Your task to perform on an android device: Clear the shopping cart on costco. Search for "logitech g pro" on costco, select the first entry, and add it to the cart. Image 0: 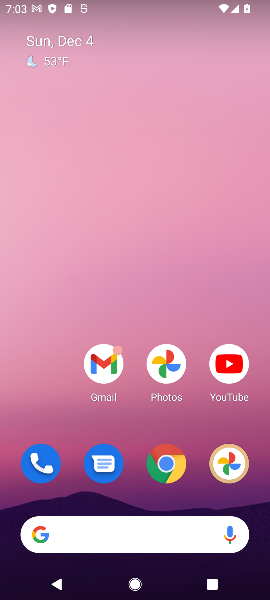
Step 0: click (166, 531)
Your task to perform on an android device: Clear the shopping cart on costco. Search for "logitech g pro" on costco, select the first entry, and add it to the cart. Image 1: 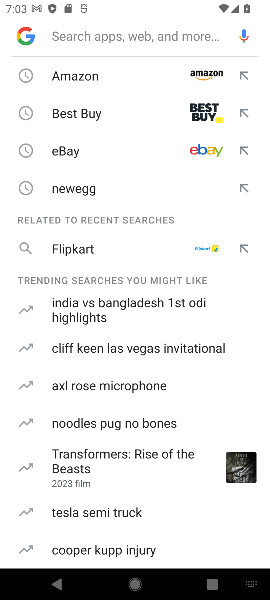
Step 1: type "costco"
Your task to perform on an android device: Clear the shopping cart on costco. Search for "logitech g pro" on costco, select the first entry, and add it to the cart. Image 2: 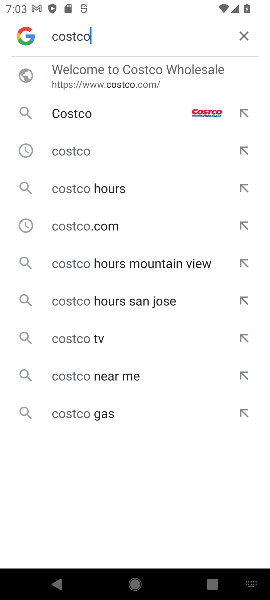
Step 2: click (131, 79)
Your task to perform on an android device: Clear the shopping cart on costco. Search for "logitech g pro" on costco, select the first entry, and add it to the cart. Image 3: 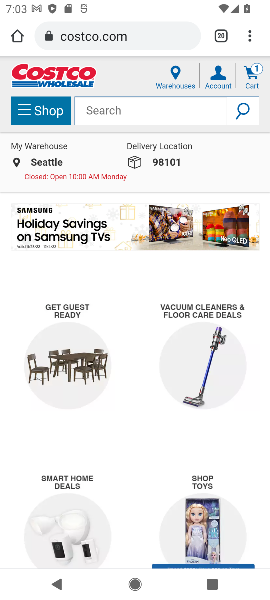
Step 3: click (134, 113)
Your task to perform on an android device: Clear the shopping cart on costco. Search for "logitech g pro" on costco, select the first entry, and add it to the cart. Image 4: 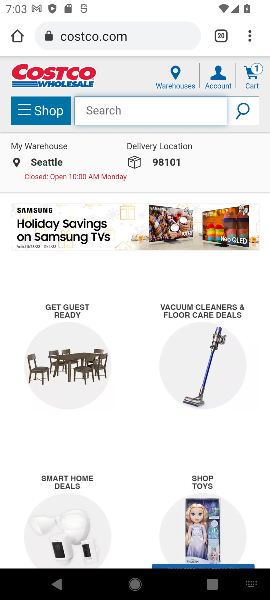
Step 4: type "logitech g pro"
Your task to perform on an android device: Clear the shopping cart on costco. Search for "logitech g pro" on costco, select the first entry, and add it to the cart. Image 5: 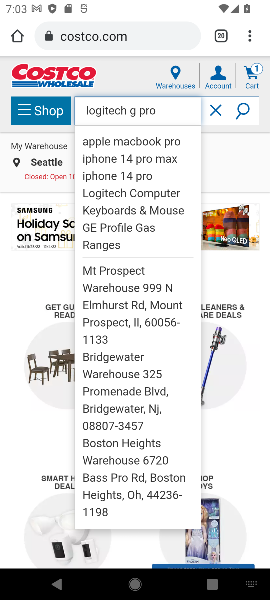
Step 5: click (242, 107)
Your task to perform on an android device: Clear the shopping cart on costco. Search for "logitech g pro" on costco, select the first entry, and add it to the cart. Image 6: 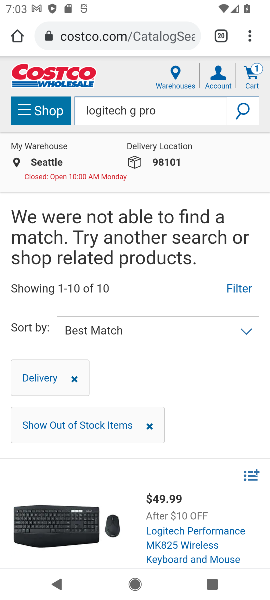
Step 6: click (238, 116)
Your task to perform on an android device: Clear the shopping cart on costco. Search for "logitech g pro" on costco, select the first entry, and add it to the cart. Image 7: 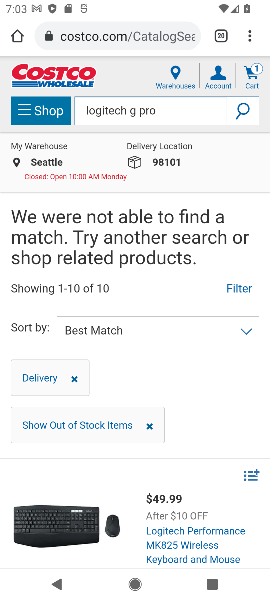
Step 7: click (161, 555)
Your task to perform on an android device: Clear the shopping cart on costco. Search for "logitech g pro" on costco, select the first entry, and add it to the cart. Image 8: 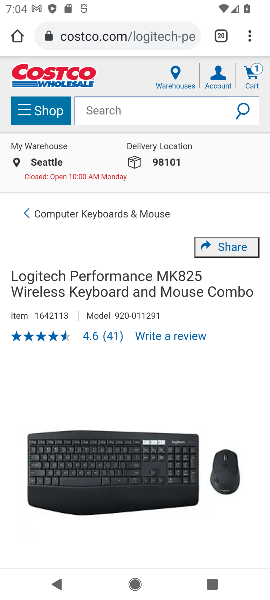
Step 8: task complete